Your task to perform on an android device: Go to settings Image 0: 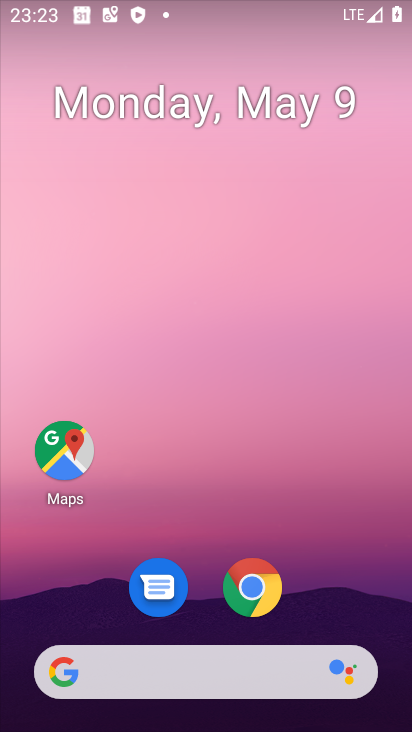
Step 0: drag from (196, 606) to (198, 309)
Your task to perform on an android device: Go to settings Image 1: 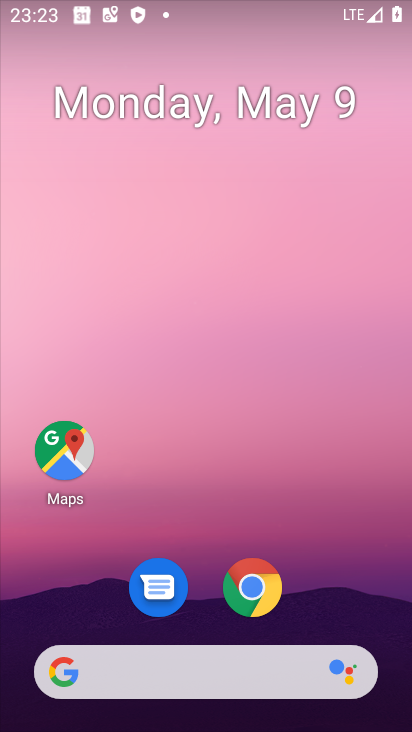
Step 1: drag from (194, 614) to (184, 259)
Your task to perform on an android device: Go to settings Image 2: 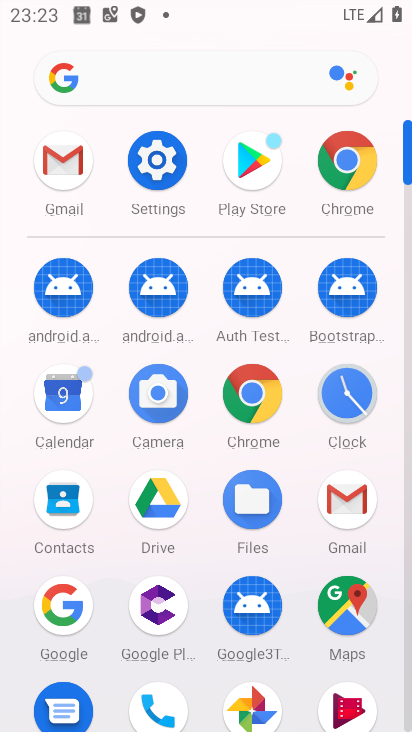
Step 2: click (164, 151)
Your task to perform on an android device: Go to settings Image 3: 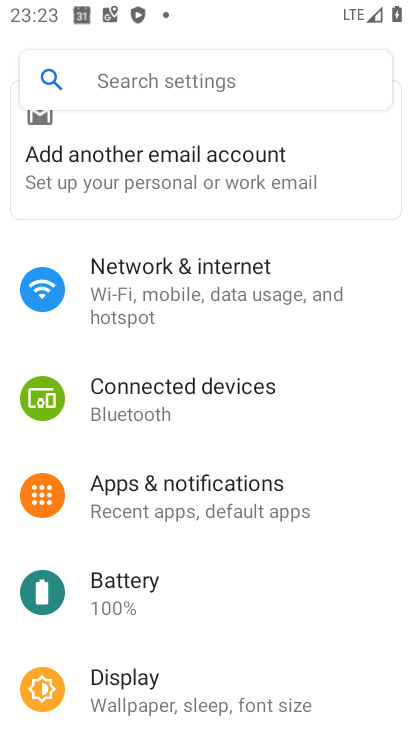
Step 3: task complete